Your task to perform on an android device: turn notification dots on Image 0: 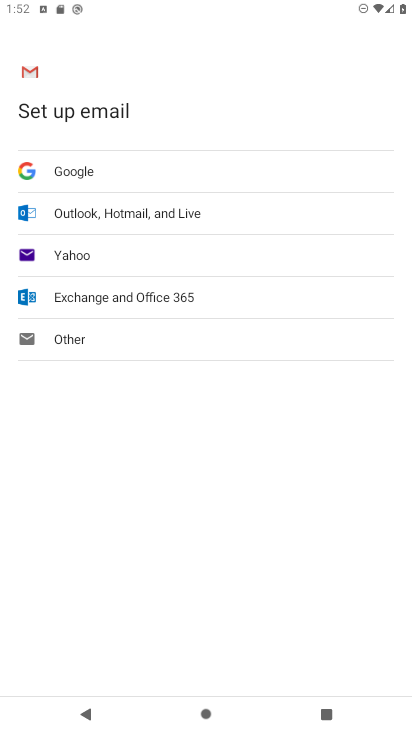
Step 0: press home button
Your task to perform on an android device: turn notification dots on Image 1: 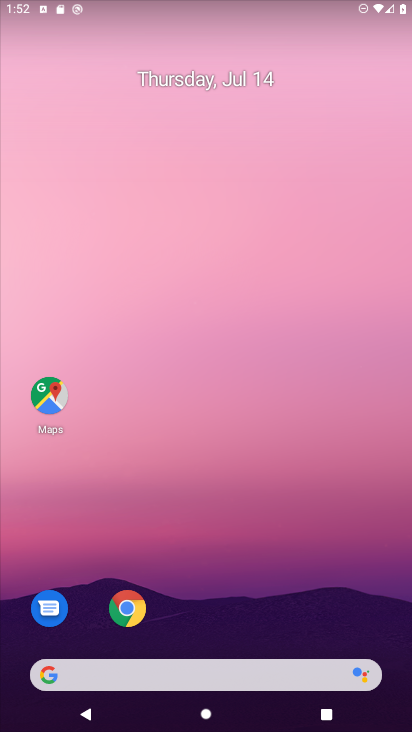
Step 1: drag from (354, 617) to (327, 169)
Your task to perform on an android device: turn notification dots on Image 2: 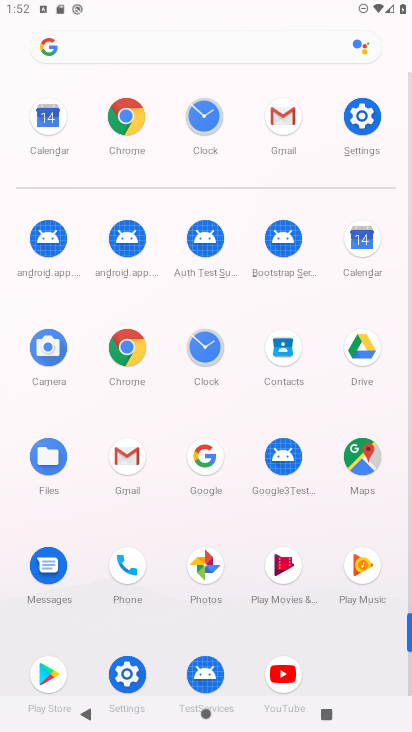
Step 2: click (127, 675)
Your task to perform on an android device: turn notification dots on Image 3: 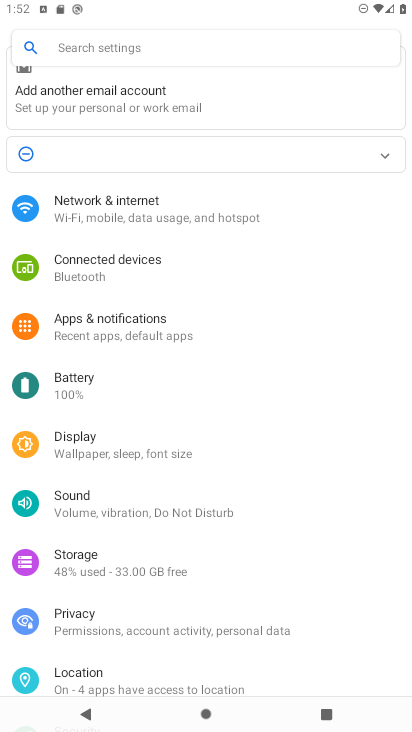
Step 3: click (109, 342)
Your task to perform on an android device: turn notification dots on Image 4: 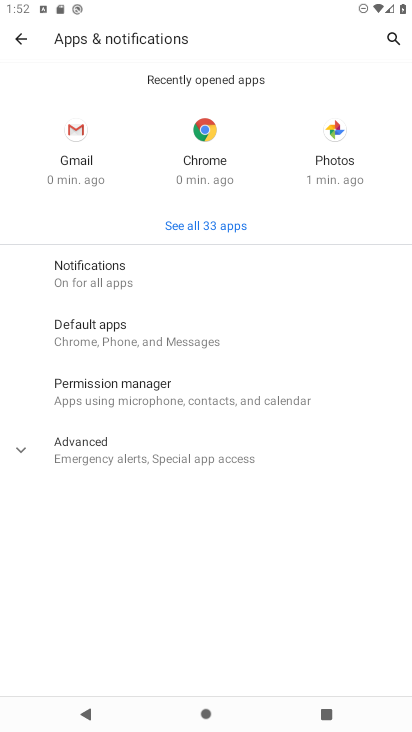
Step 4: click (63, 266)
Your task to perform on an android device: turn notification dots on Image 5: 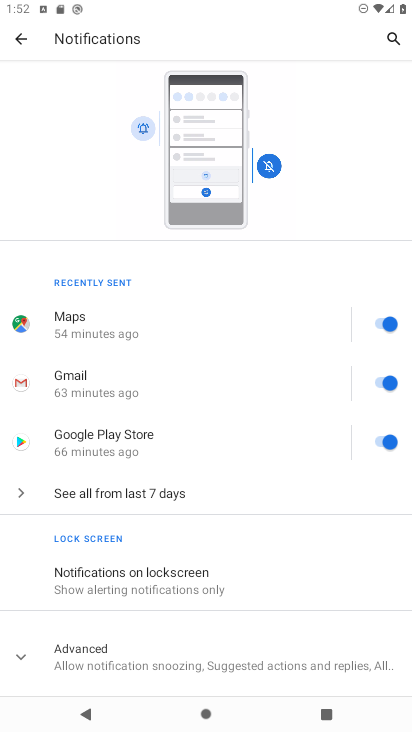
Step 5: click (45, 662)
Your task to perform on an android device: turn notification dots on Image 6: 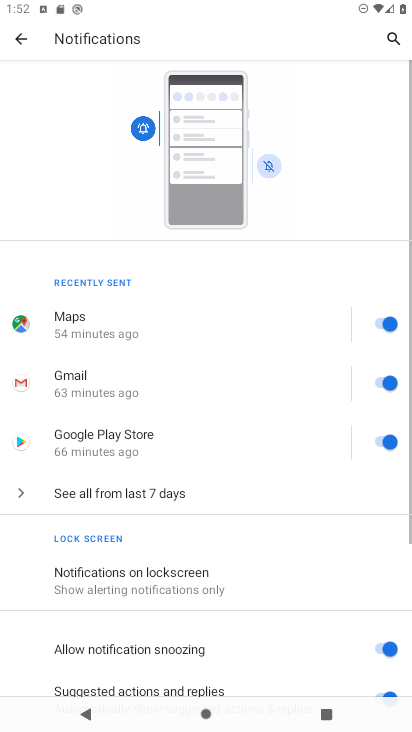
Step 6: task complete